Your task to perform on an android device: turn on location history Image 0: 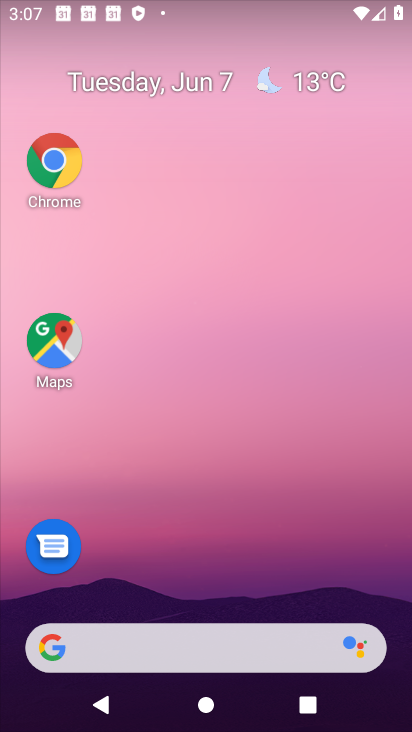
Step 0: drag from (174, 555) to (270, 24)
Your task to perform on an android device: turn on location history Image 1: 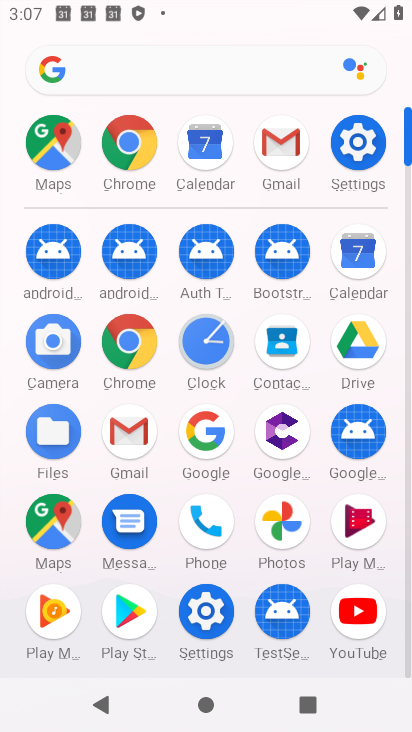
Step 1: click (357, 132)
Your task to perform on an android device: turn on location history Image 2: 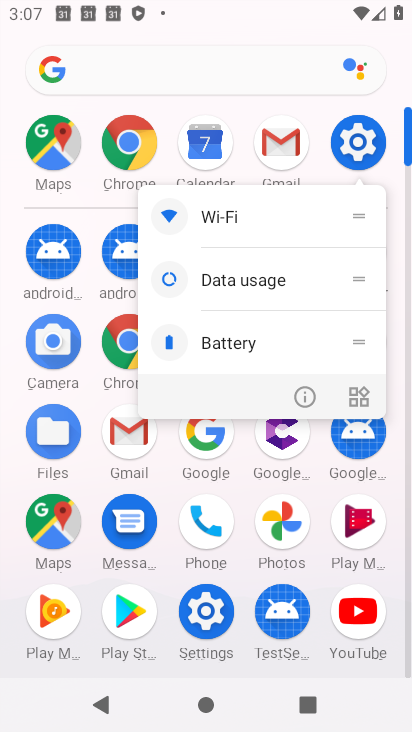
Step 2: click (304, 394)
Your task to perform on an android device: turn on location history Image 3: 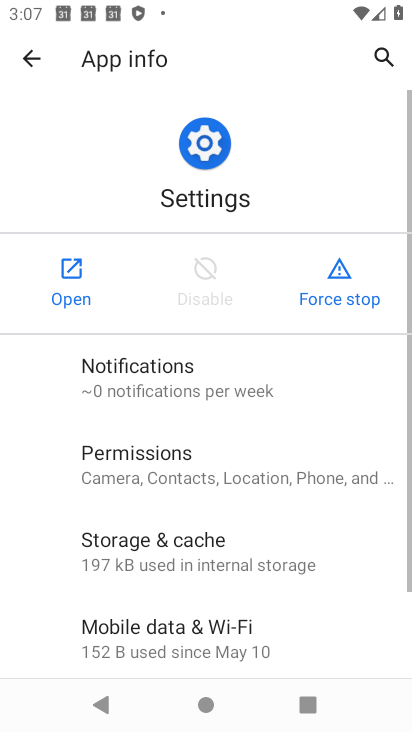
Step 3: click (63, 307)
Your task to perform on an android device: turn on location history Image 4: 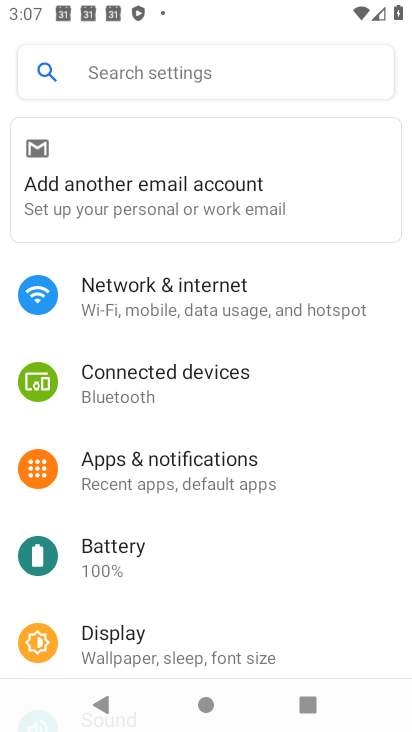
Step 4: drag from (171, 615) to (257, 197)
Your task to perform on an android device: turn on location history Image 5: 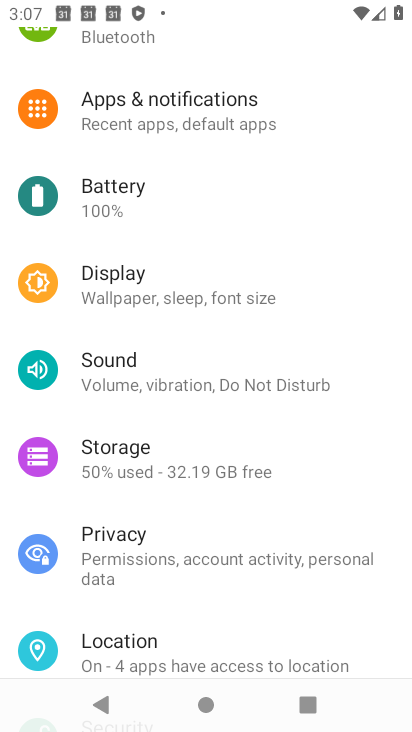
Step 5: drag from (183, 593) to (272, 186)
Your task to perform on an android device: turn on location history Image 6: 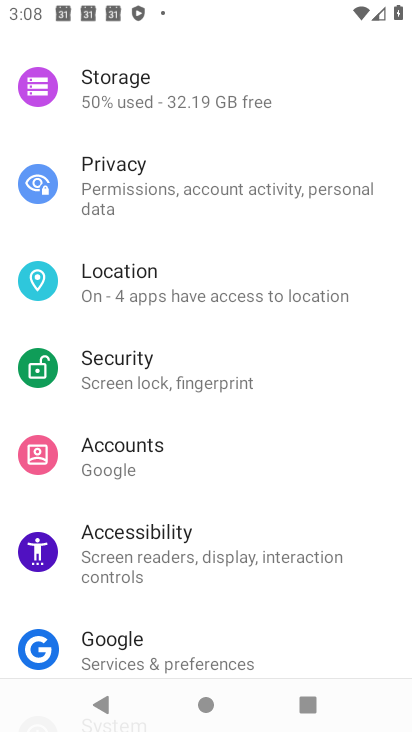
Step 6: click (113, 281)
Your task to perform on an android device: turn on location history Image 7: 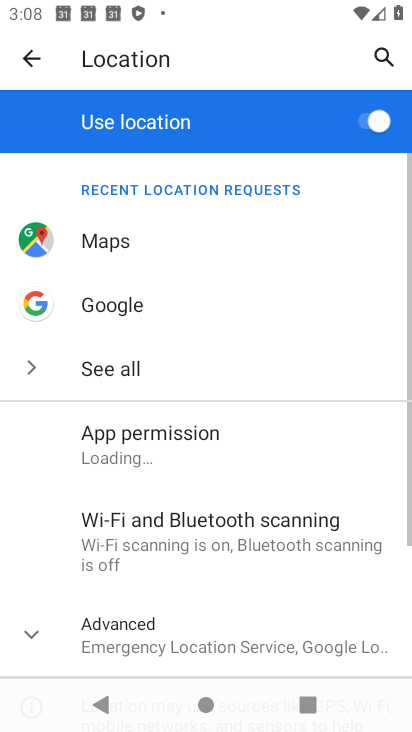
Step 7: drag from (160, 613) to (249, 172)
Your task to perform on an android device: turn on location history Image 8: 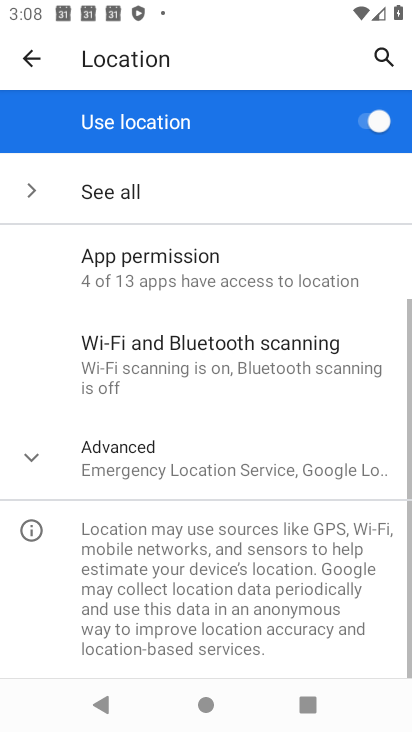
Step 8: click (145, 459)
Your task to perform on an android device: turn on location history Image 9: 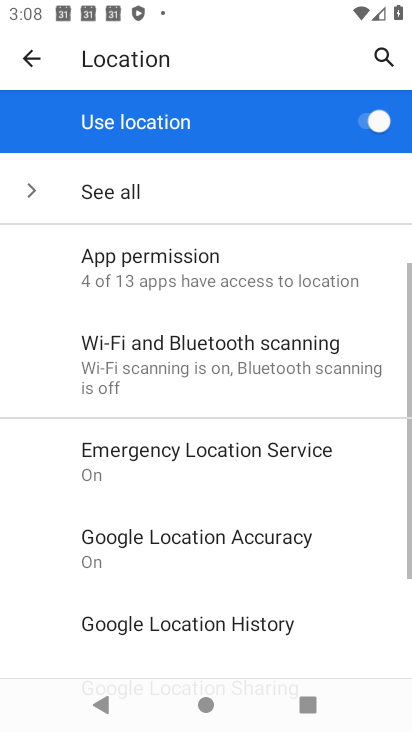
Step 9: drag from (194, 472) to (305, 79)
Your task to perform on an android device: turn on location history Image 10: 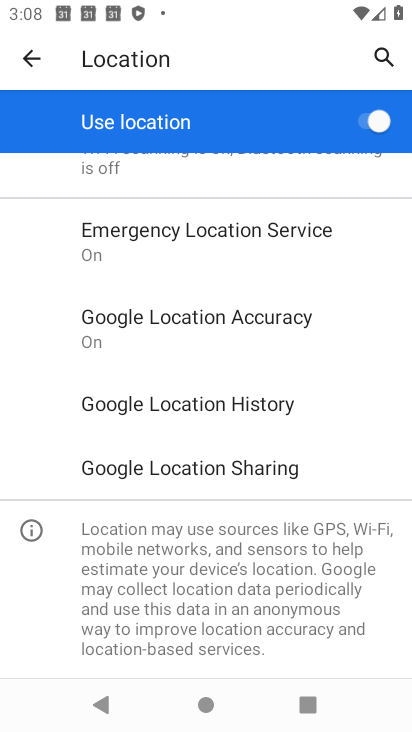
Step 10: click (252, 403)
Your task to perform on an android device: turn on location history Image 11: 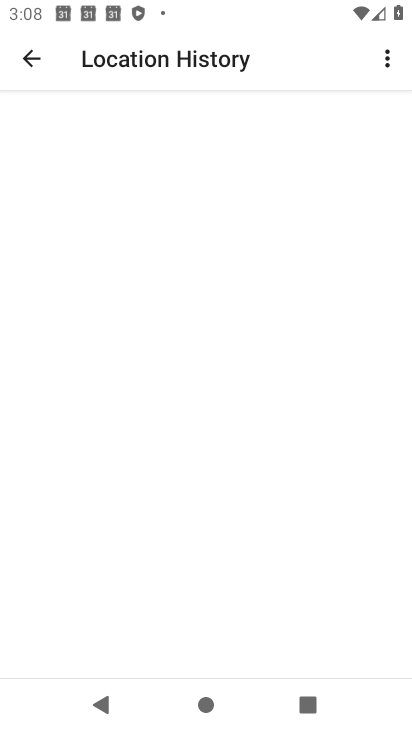
Step 11: drag from (262, 523) to (314, 120)
Your task to perform on an android device: turn on location history Image 12: 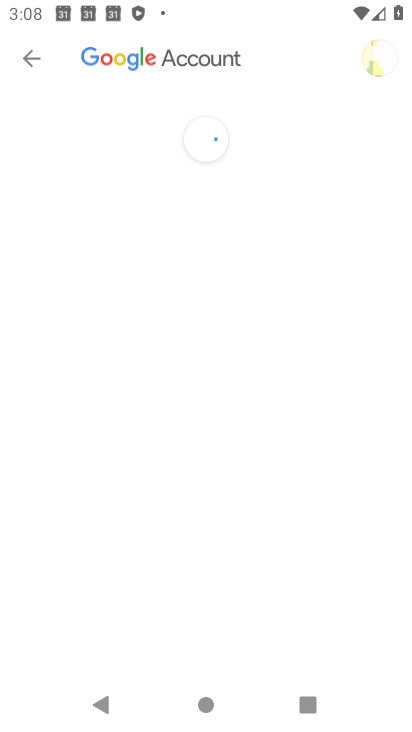
Step 12: drag from (243, 525) to (263, 380)
Your task to perform on an android device: turn on location history Image 13: 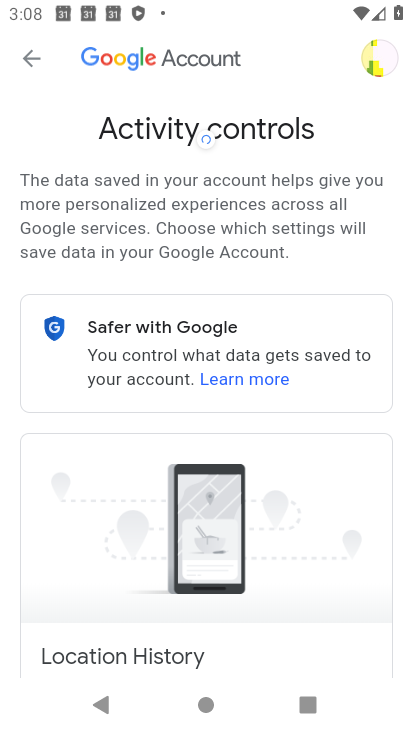
Step 13: drag from (263, 510) to (331, 241)
Your task to perform on an android device: turn on location history Image 14: 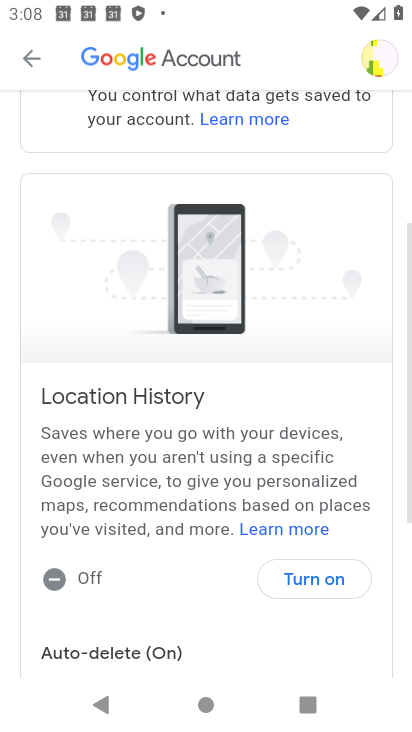
Step 14: drag from (212, 632) to (249, 337)
Your task to perform on an android device: turn on location history Image 15: 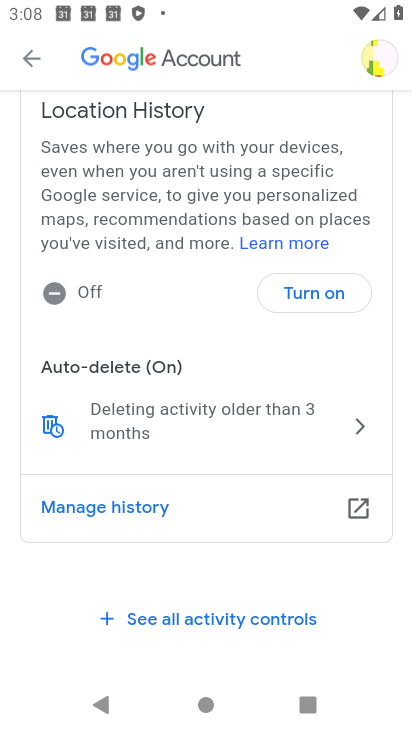
Step 15: drag from (203, 578) to (244, 301)
Your task to perform on an android device: turn on location history Image 16: 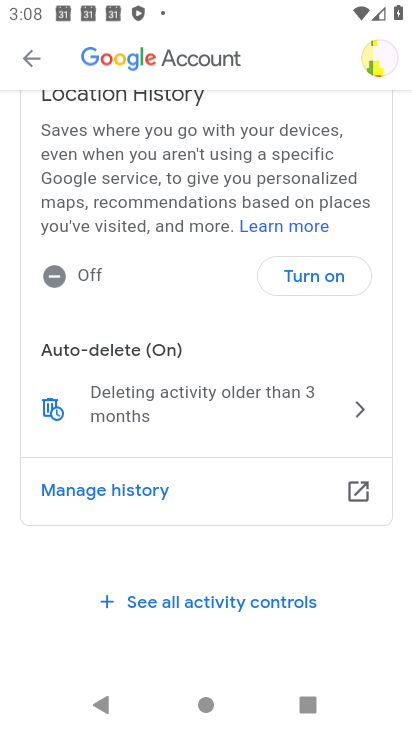
Step 16: drag from (210, 403) to (282, 731)
Your task to perform on an android device: turn on location history Image 17: 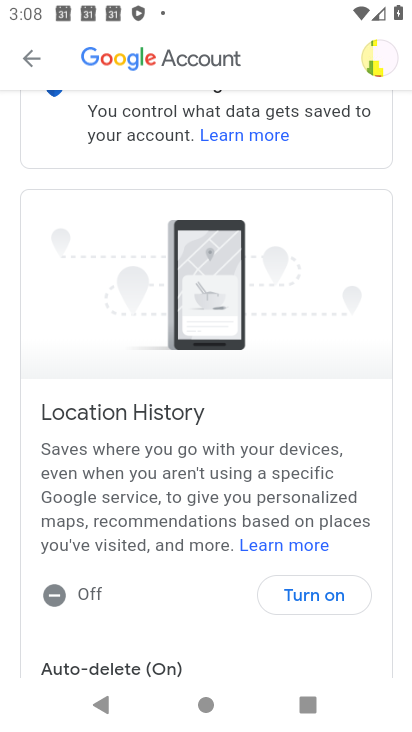
Step 17: drag from (223, 472) to (245, 727)
Your task to perform on an android device: turn on location history Image 18: 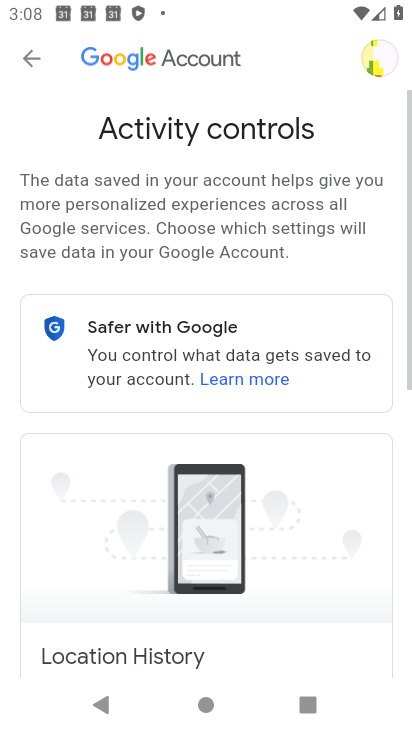
Step 18: drag from (227, 621) to (248, 297)
Your task to perform on an android device: turn on location history Image 19: 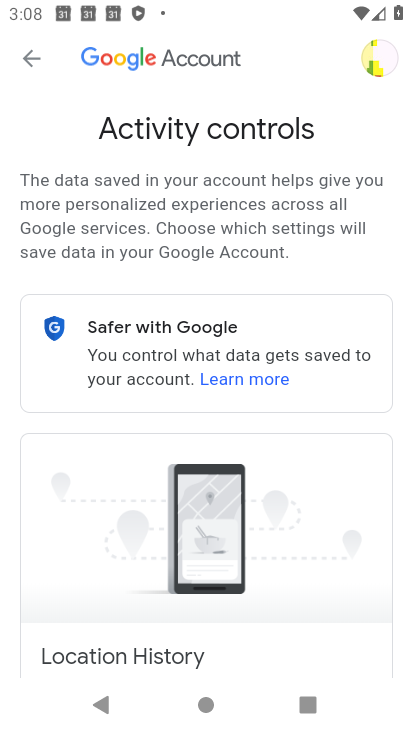
Step 19: drag from (192, 625) to (278, 281)
Your task to perform on an android device: turn on location history Image 20: 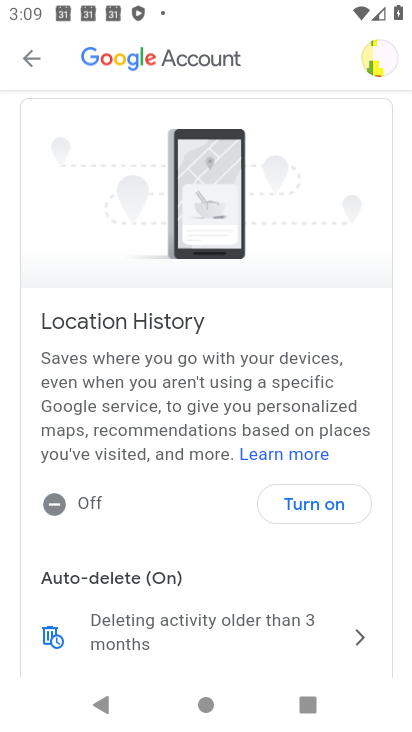
Step 20: drag from (186, 596) to (254, 406)
Your task to perform on an android device: turn on location history Image 21: 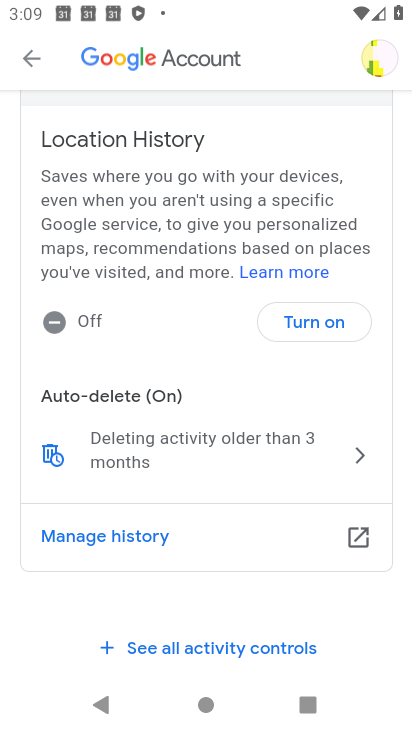
Step 21: click (323, 316)
Your task to perform on an android device: turn on location history Image 22: 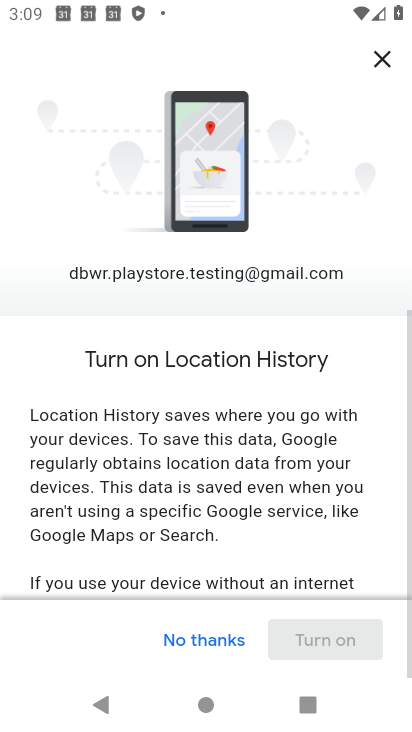
Step 22: drag from (240, 357) to (278, 156)
Your task to perform on an android device: turn on location history Image 23: 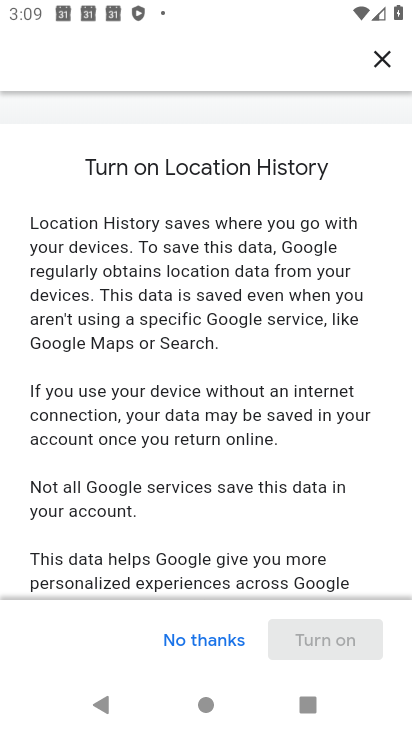
Step 23: drag from (215, 547) to (314, 207)
Your task to perform on an android device: turn on location history Image 24: 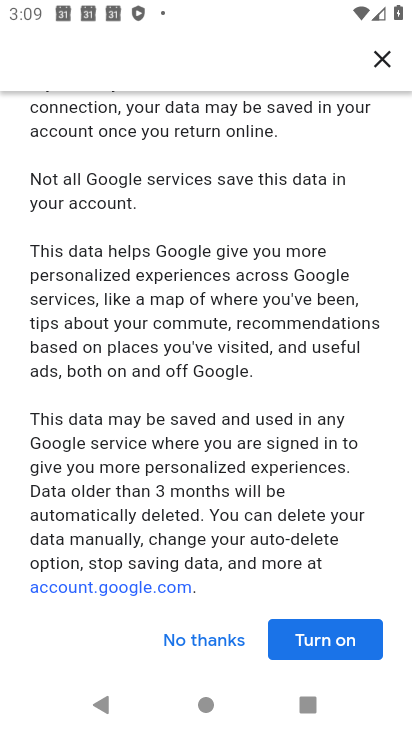
Step 24: drag from (218, 534) to (312, 312)
Your task to perform on an android device: turn on location history Image 25: 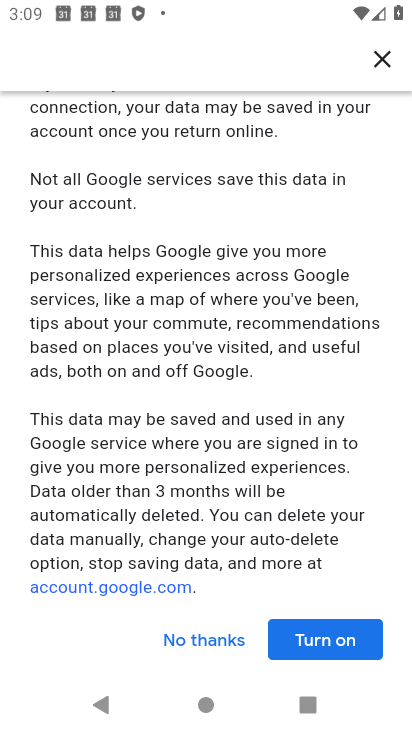
Step 25: click (332, 651)
Your task to perform on an android device: turn on location history Image 26: 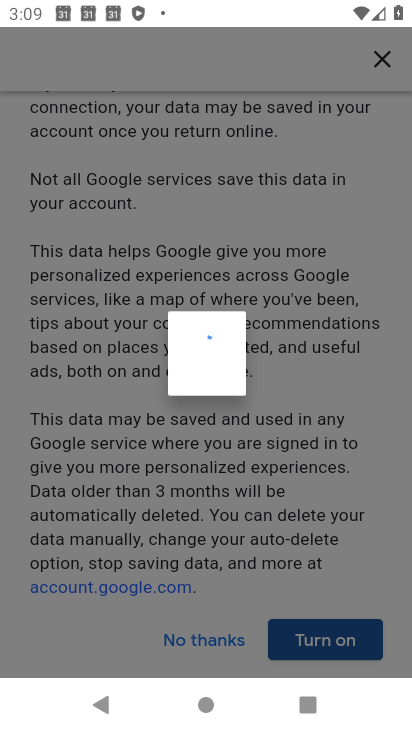
Step 26: click (308, 627)
Your task to perform on an android device: turn on location history Image 27: 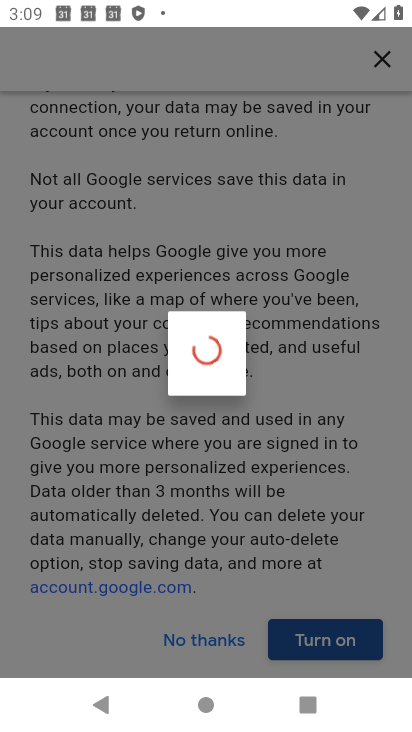
Step 27: drag from (198, 528) to (302, 290)
Your task to perform on an android device: turn on location history Image 28: 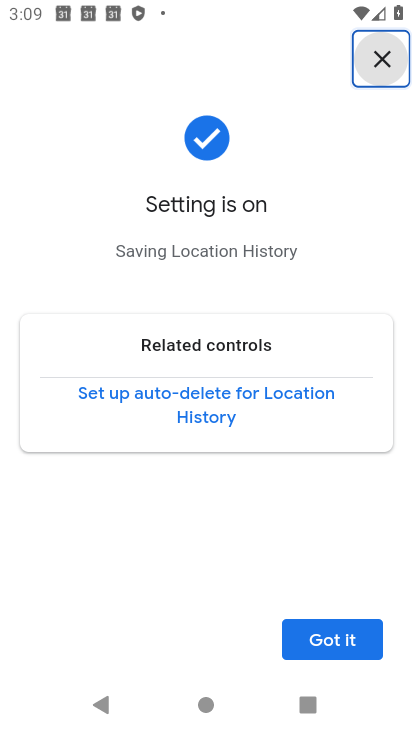
Step 28: drag from (238, 464) to (338, 121)
Your task to perform on an android device: turn on location history Image 29: 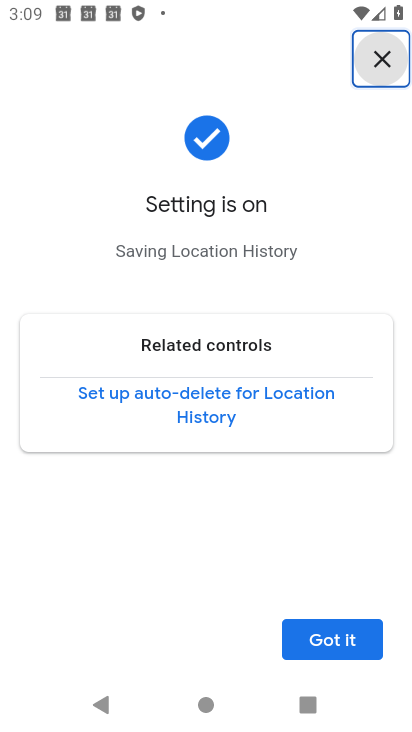
Step 29: click (360, 649)
Your task to perform on an android device: turn on location history Image 30: 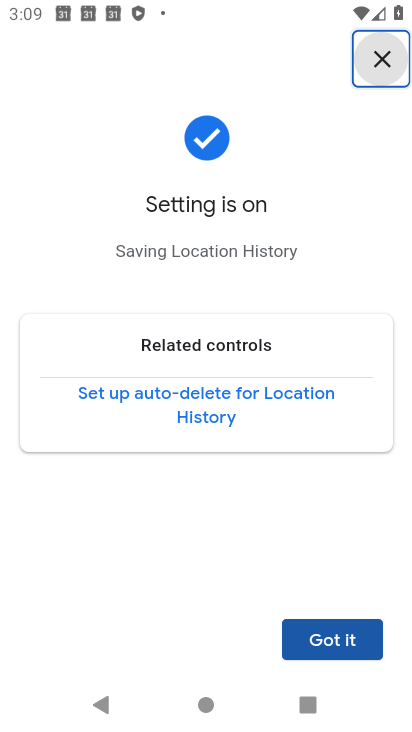
Step 30: task complete